Your task to perform on an android device: add a label to a message in the gmail app Image 0: 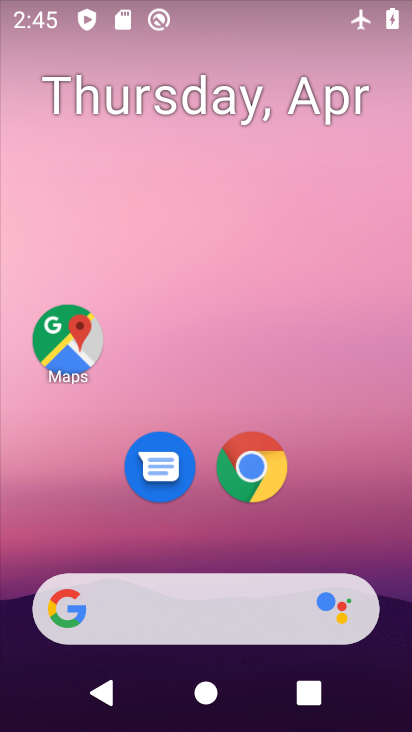
Step 0: drag from (341, 548) to (357, 117)
Your task to perform on an android device: add a label to a message in the gmail app Image 1: 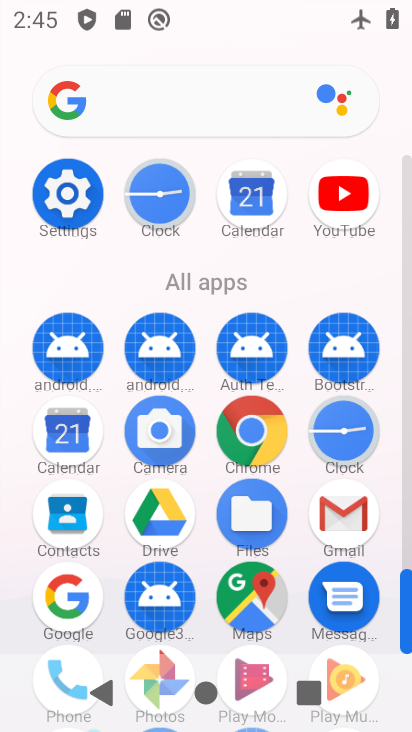
Step 1: click (346, 518)
Your task to perform on an android device: add a label to a message in the gmail app Image 2: 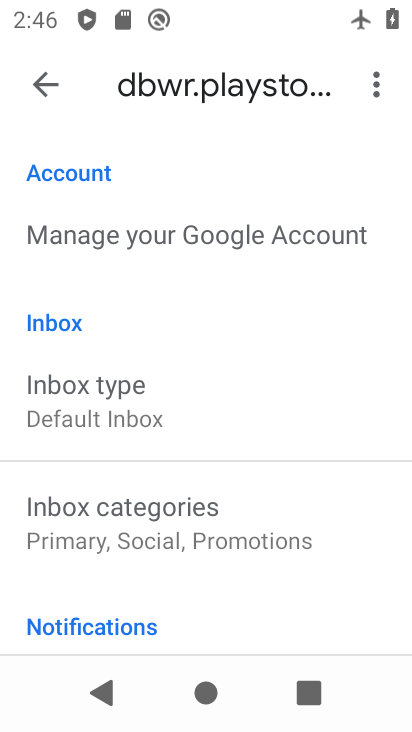
Step 2: click (48, 80)
Your task to perform on an android device: add a label to a message in the gmail app Image 3: 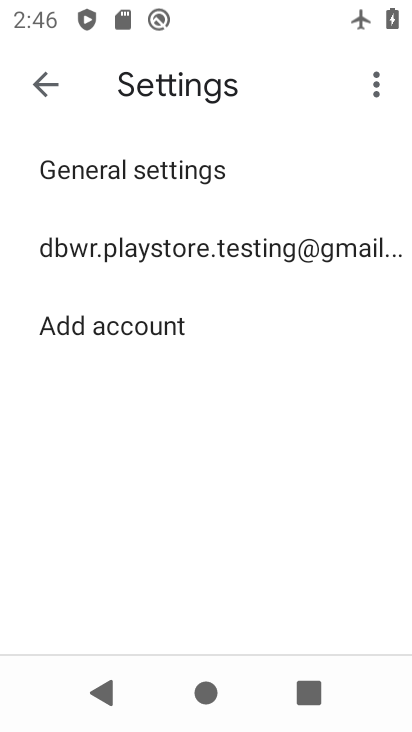
Step 3: click (48, 79)
Your task to perform on an android device: add a label to a message in the gmail app Image 4: 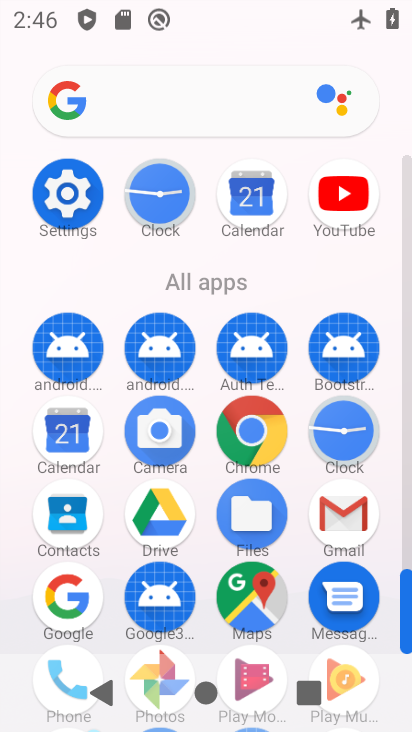
Step 4: click (345, 519)
Your task to perform on an android device: add a label to a message in the gmail app Image 5: 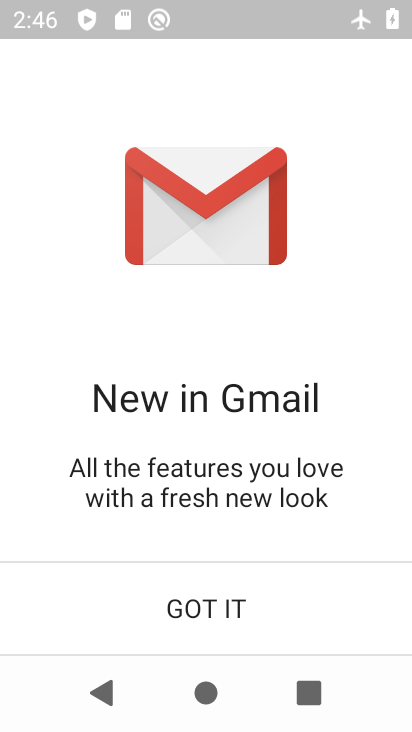
Step 5: click (256, 603)
Your task to perform on an android device: add a label to a message in the gmail app Image 6: 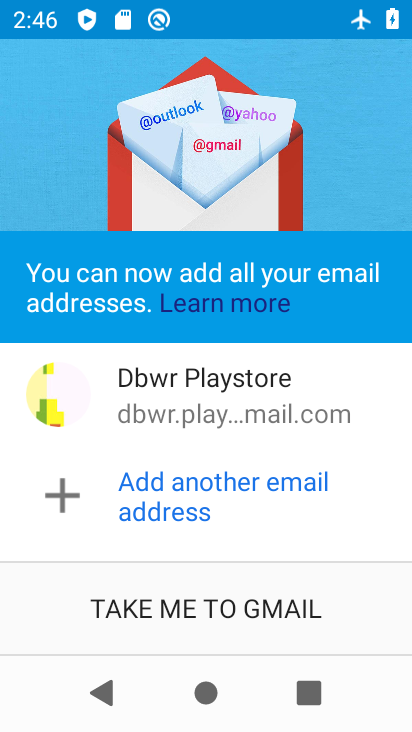
Step 6: click (256, 604)
Your task to perform on an android device: add a label to a message in the gmail app Image 7: 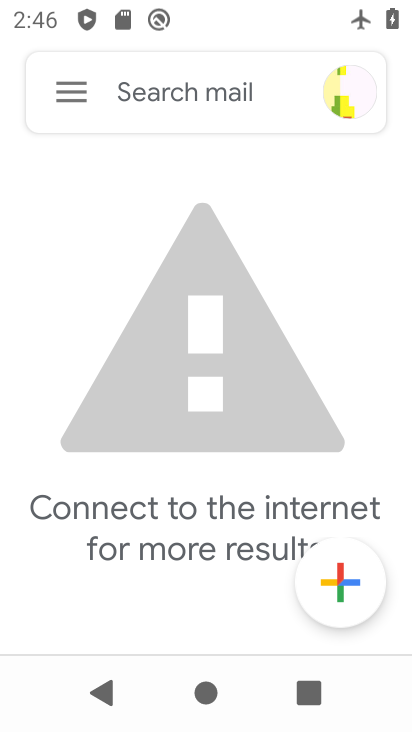
Step 7: task complete